Your task to perform on an android device: Go to Yahoo.com Image 0: 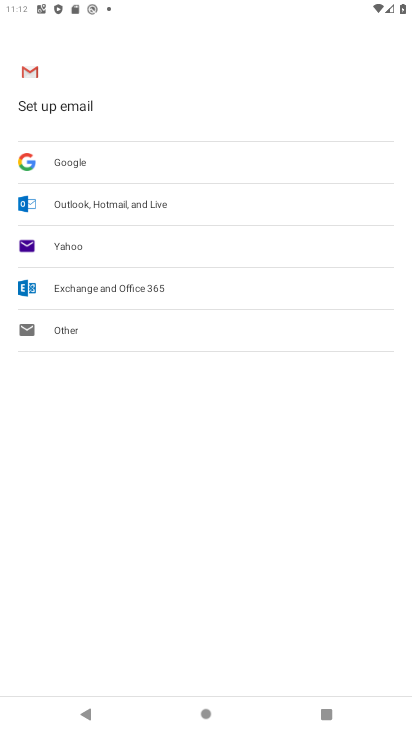
Step 0: press home button
Your task to perform on an android device: Go to Yahoo.com Image 1: 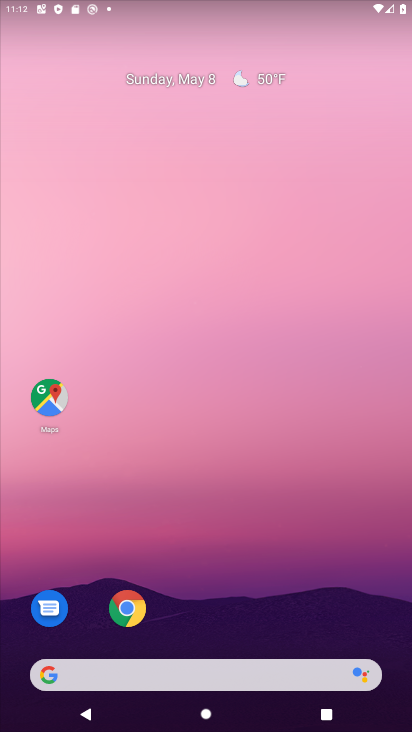
Step 1: drag from (292, 573) to (330, 156)
Your task to perform on an android device: Go to Yahoo.com Image 2: 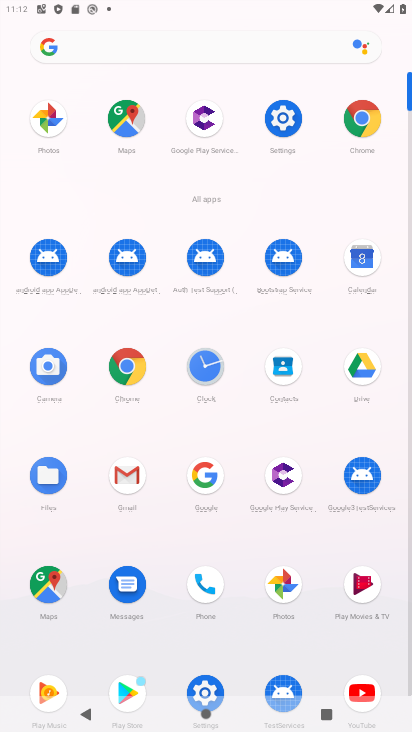
Step 2: click (366, 126)
Your task to perform on an android device: Go to Yahoo.com Image 3: 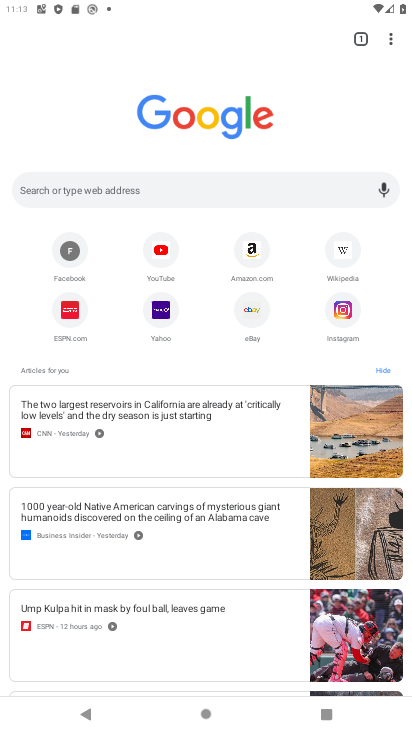
Step 3: click (163, 308)
Your task to perform on an android device: Go to Yahoo.com Image 4: 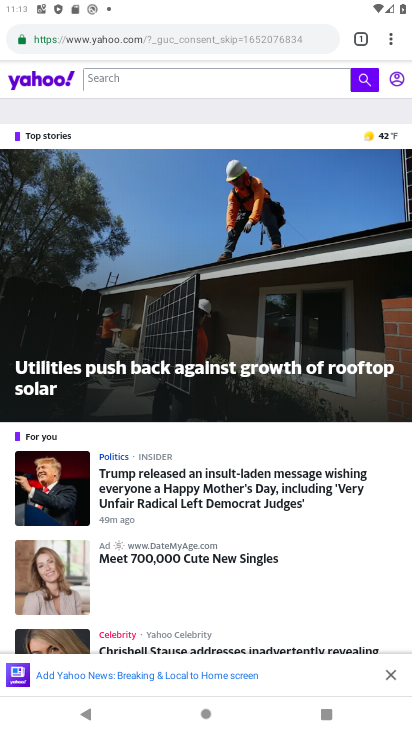
Step 4: task complete